Your task to perform on an android device: turn on location history Image 0: 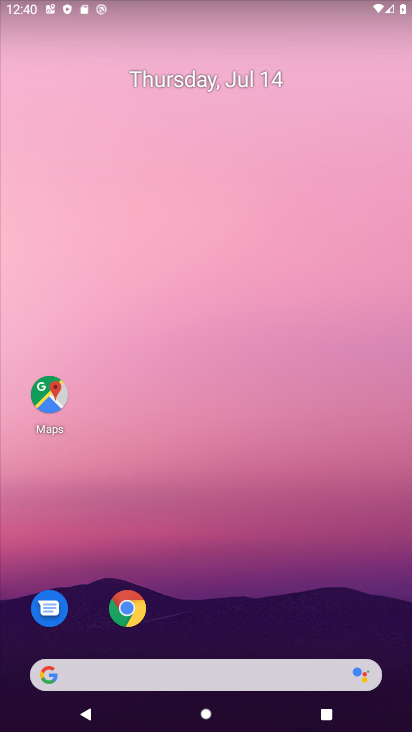
Step 0: press home button
Your task to perform on an android device: turn on location history Image 1: 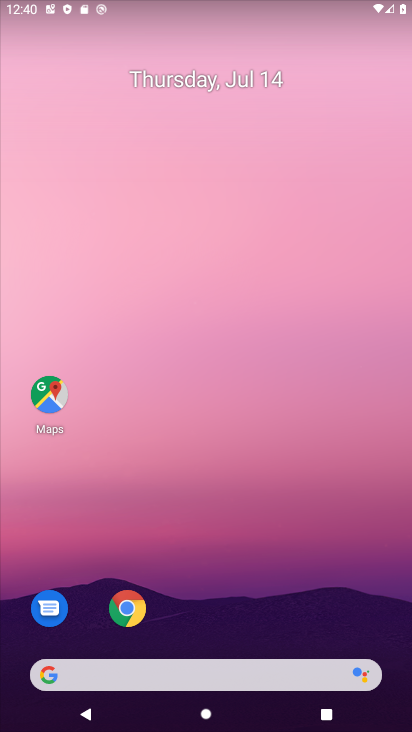
Step 1: drag from (246, 702) to (197, 281)
Your task to perform on an android device: turn on location history Image 2: 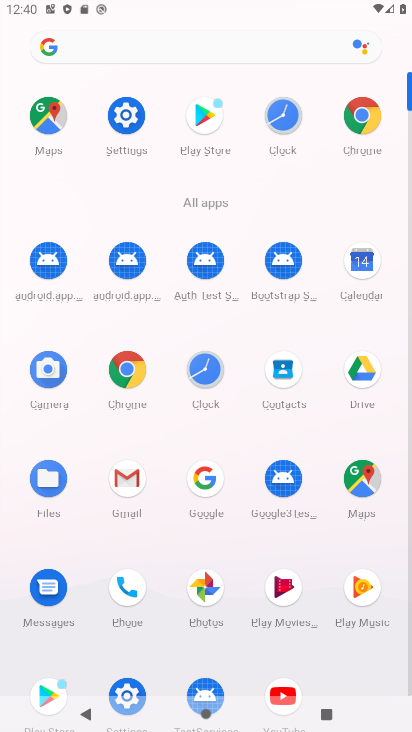
Step 2: click (52, 144)
Your task to perform on an android device: turn on location history Image 3: 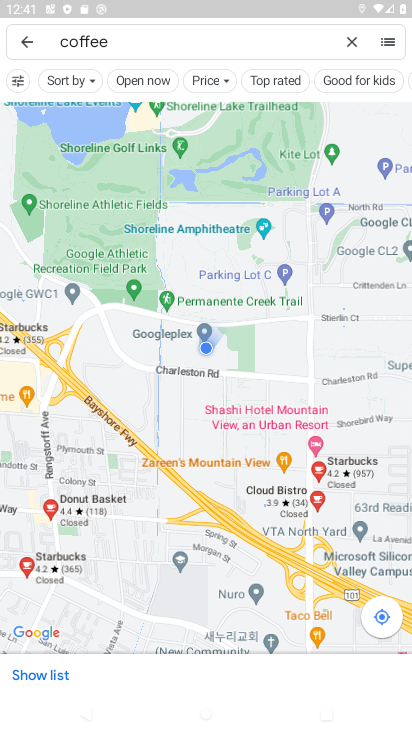
Step 3: click (19, 41)
Your task to perform on an android device: turn on location history Image 4: 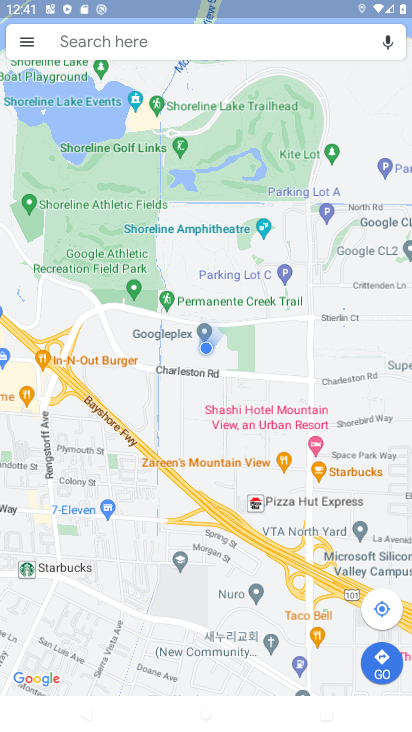
Step 4: click (19, 41)
Your task to perform on an android device: turn on location history Image 5: 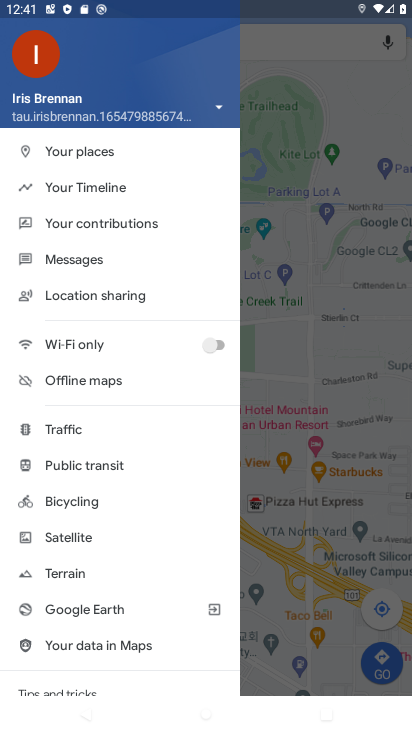
Step 5: click (60, 198)
Your task to perform on an android device: turn on location history Image 6: 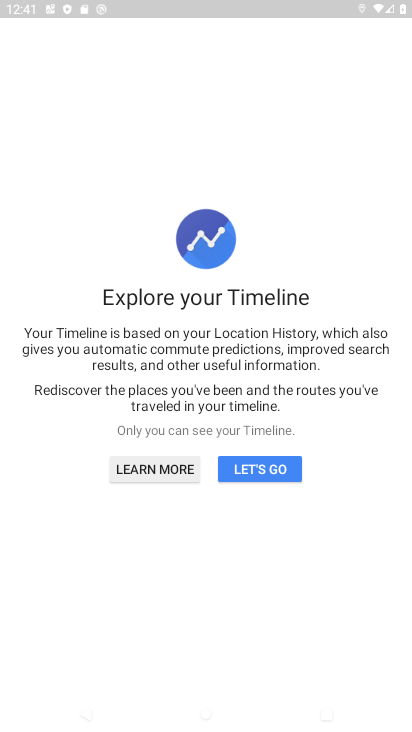
Step 6: click (234, 479)
Your task to perform on an android device: turn on location history Image 7: 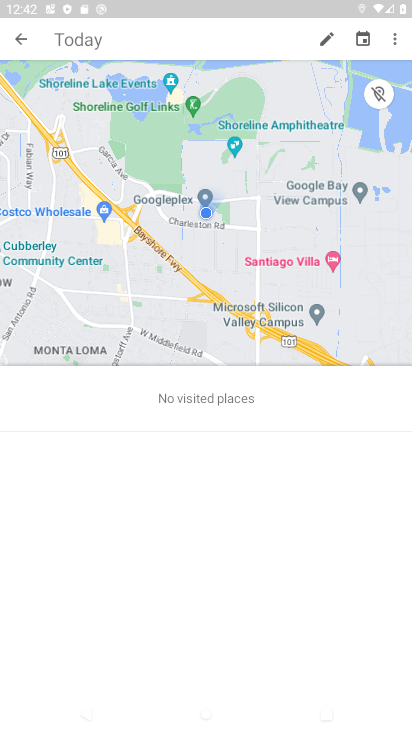
Step 7: click (396, 34)
Your task to perform on an android device: turn on location history Image 8: 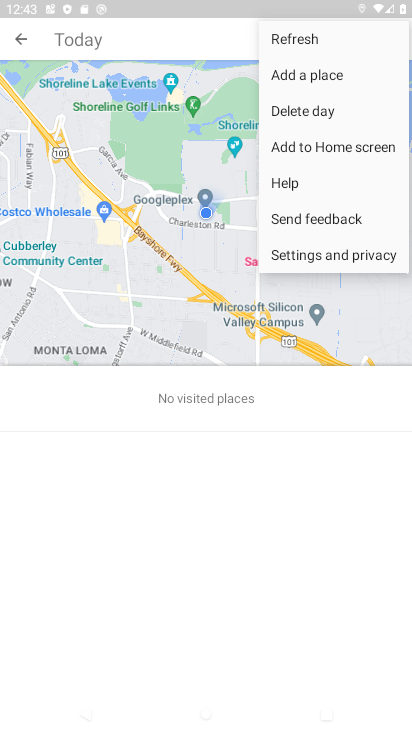
Step 8: click (303, 259)
Your task to perform on an android device: turn on location history Image 9: 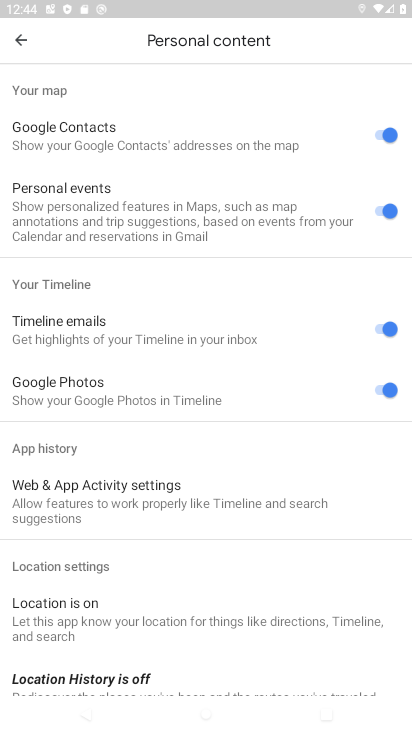
Step 9: click (40, 662)
Your task to perform on an android device: turn on location history Image 10: 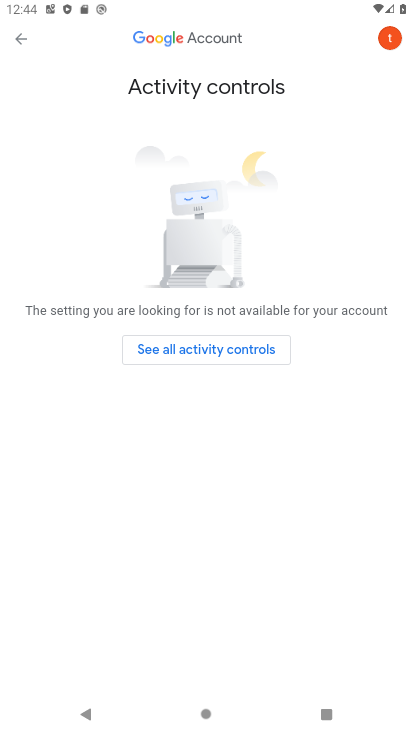
Step 10: click (214, 366)
Your task to perform on an android device: turn on location history Image 11: 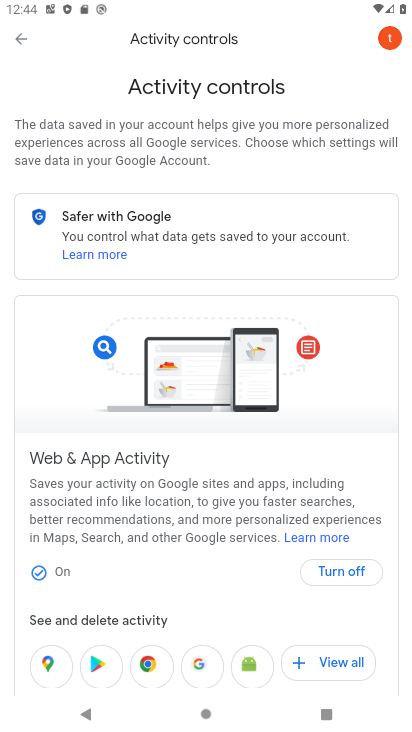
Step 11: task complete